Your task to perform on an android device: Show me recent news Image 0: 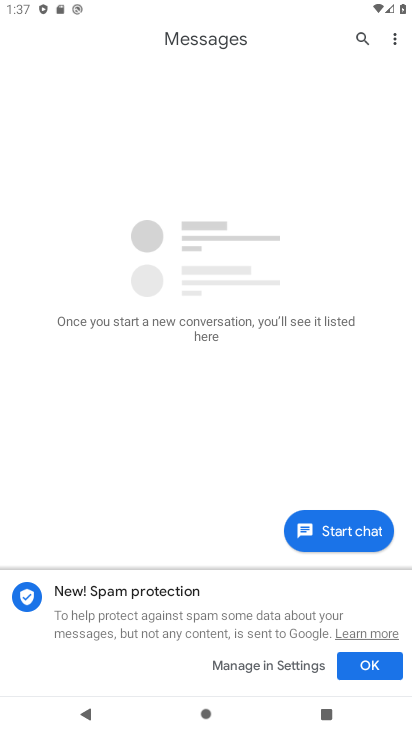
Step 0: press home button
Your task to perform on an android device: Show me recent news Image 1: 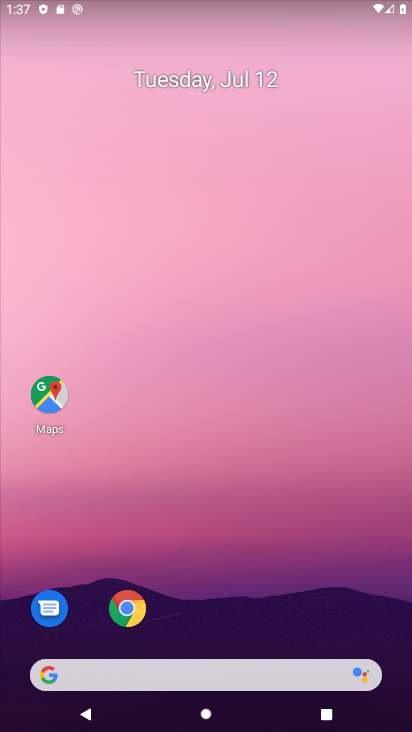
Step 1: task complete